Your task to perform on an android device: add a contact Image 0: 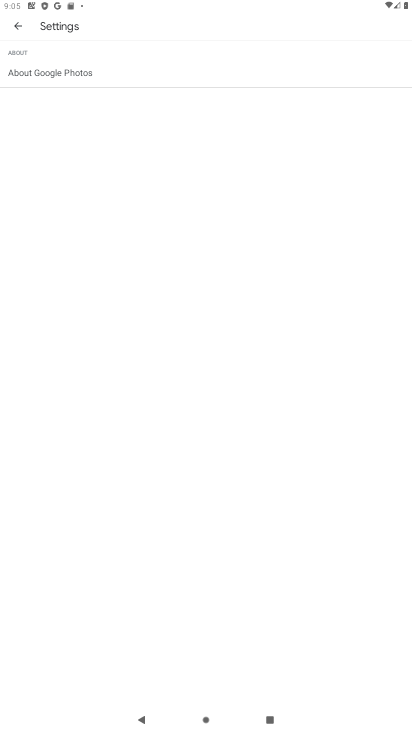
Step 0: press home button
Your task to perform on an android device: add a contact Image 1: 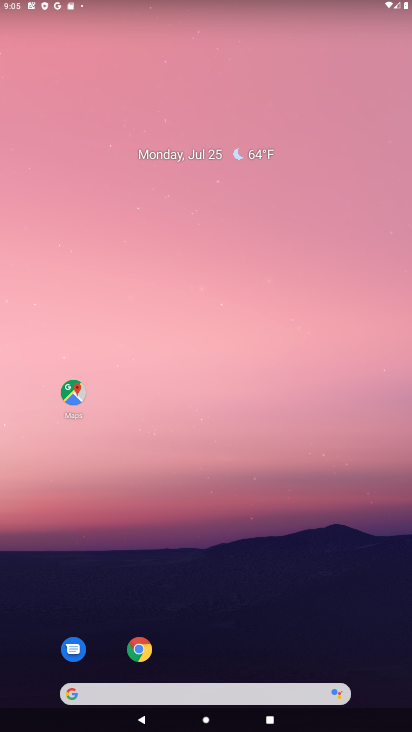
Step 1: drag from (272, 625) to (178, 10)
Your task to perform on an android device: add a contact Image 2: 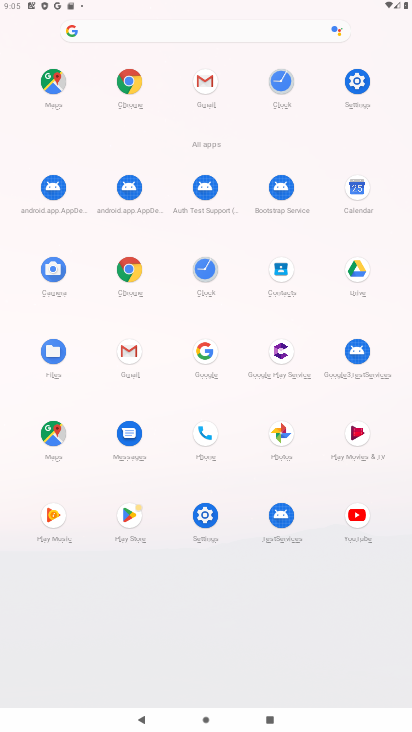
Step 2: click (283, 265)
Your task to perform on an android device: add a contact Image 3: 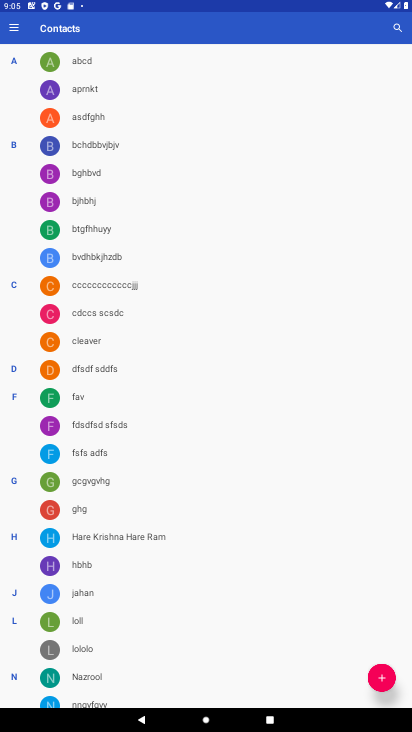
Step 3: click (385, 682)
Your task to perform on an android device: add a contact Image 4: 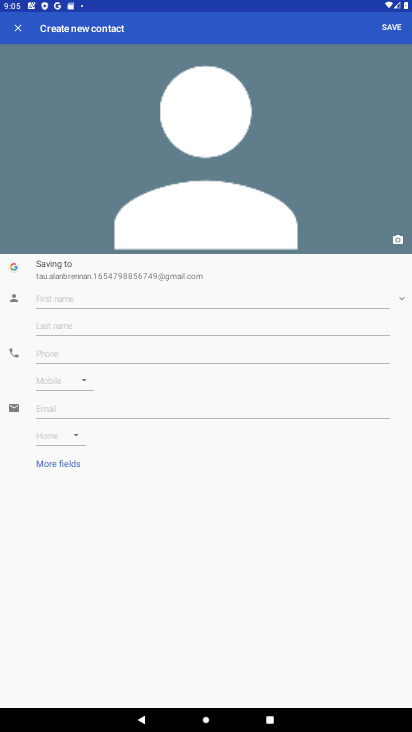
Step 4: click (148, 296)
Your task to perform on an android device: add a contact Image 5: 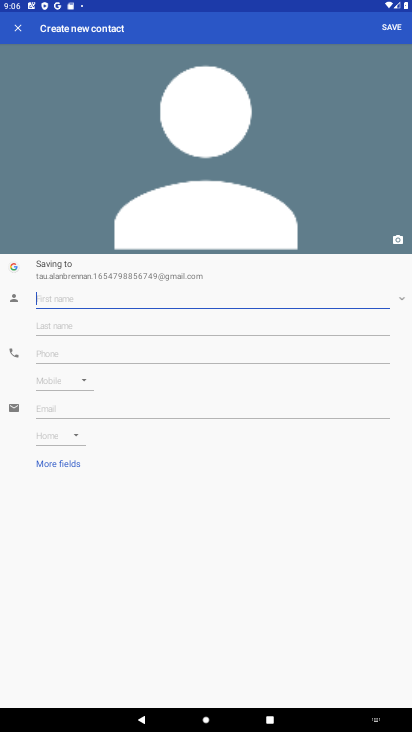
Step 5: type "ps"
Your task to perform on an android device: add a contact Image 6: 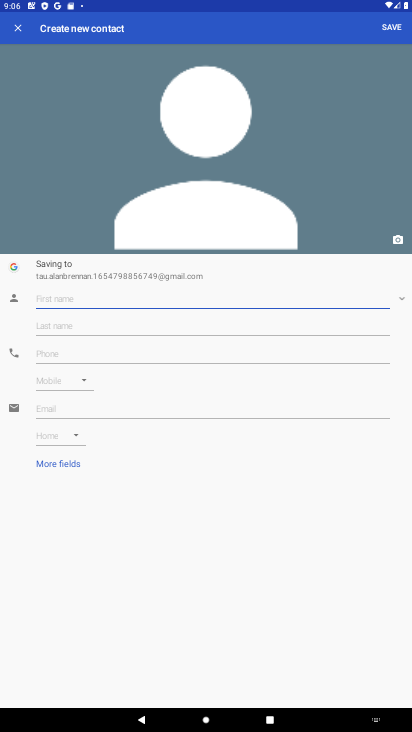
Step 6: click (89, 346)
Your task to perform on an android device: add a contact Image 7: 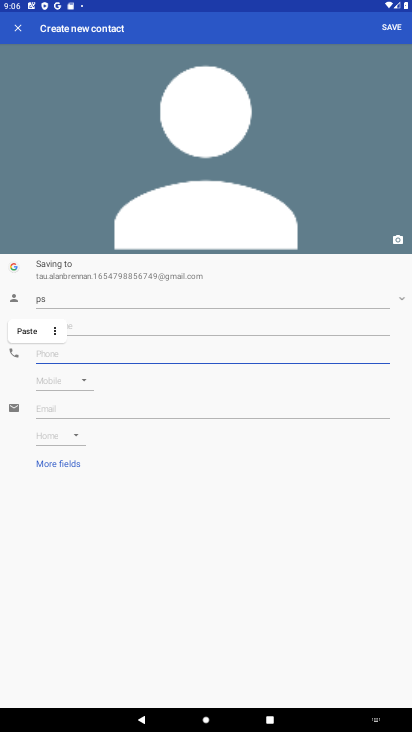
Step 7: type "9999999900"
Your task to perform on an android device: add a contact Image 8: 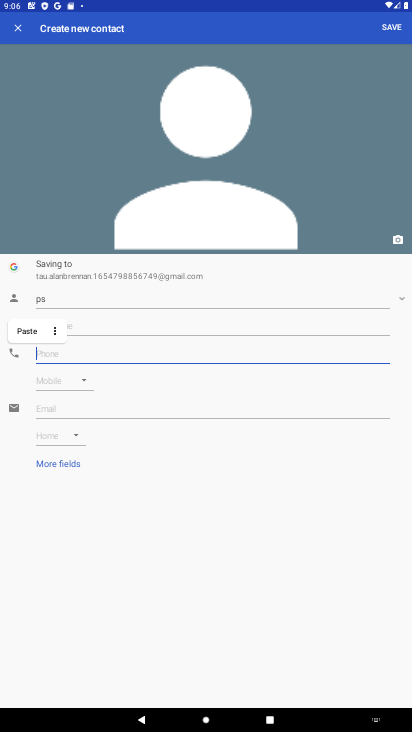
Step 8: click (398, 26)
Your task to perform on an android device: add a contact Image 9: 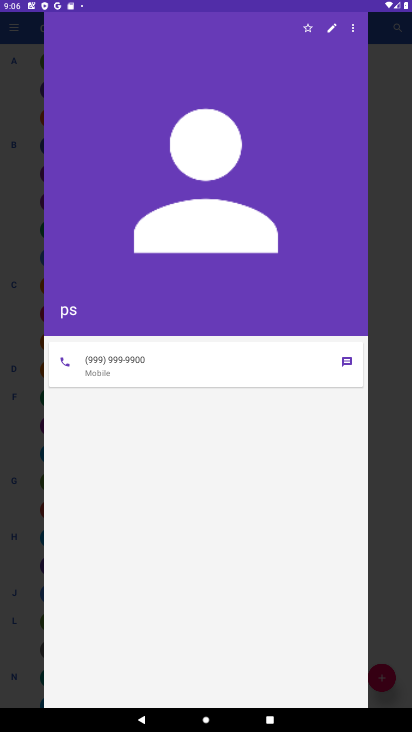
Step 9: task complete